Your task to perform on an android device: Open accessibility settings Image 0: 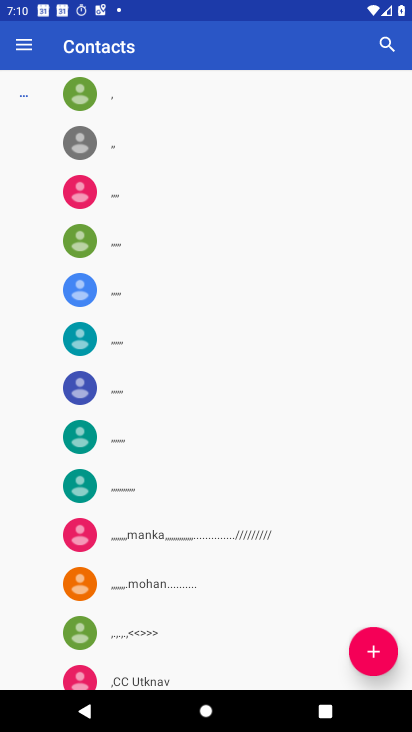
Step 0: press back button
Your task to perform on an android device: Open accessibility settings Image 1: 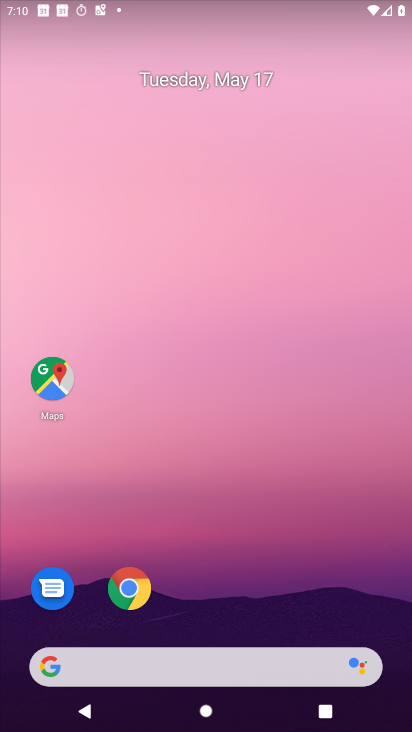
Step 1: drag from (262, 601) to (123, 31)
Your task to perform on an android device: Open accessibility settings Image 2: 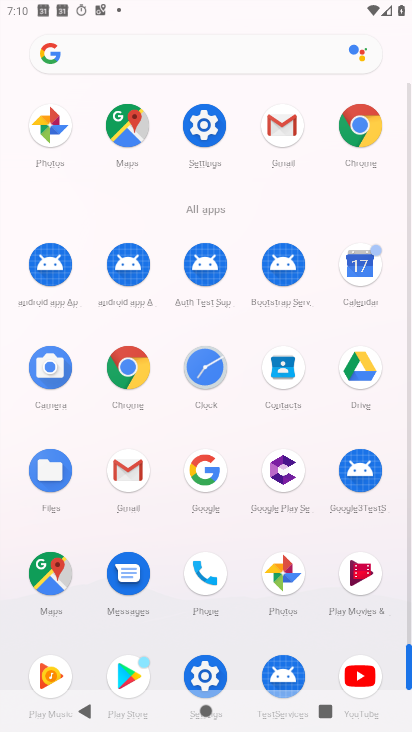
Step 2: click (203, 125)
Your task to perform on an android device: Open accessibility settings Image 3: 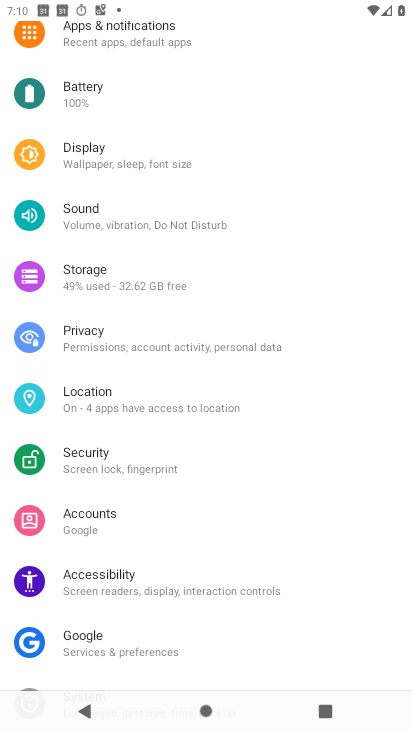
Step 3: drag from (163, 464) to (193, 397)
Your task to perform on an android device: Open accessibility settings Image 4: 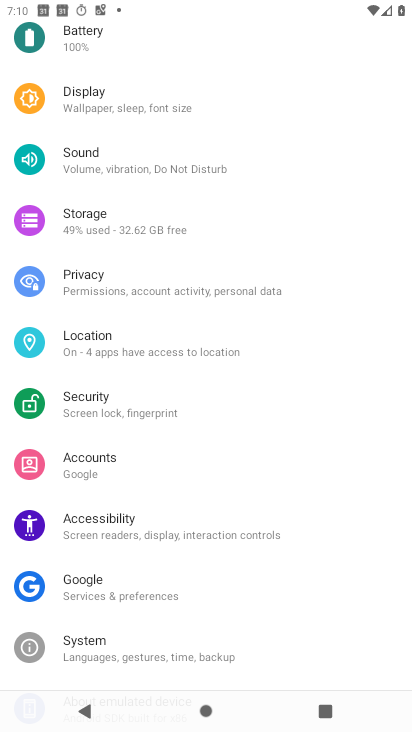
Step 4: click (112, 523)
Your task to perform on an android device: Open accessibility settings Image 5: 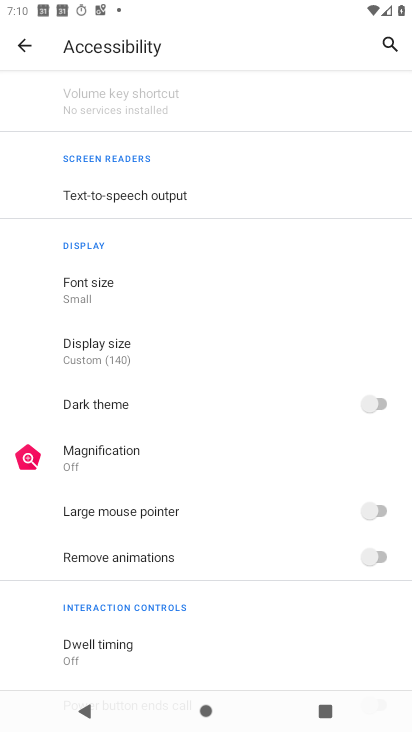
Step 5: task complete